Your task to perform on an android device: Open Wikipedia Image 0: 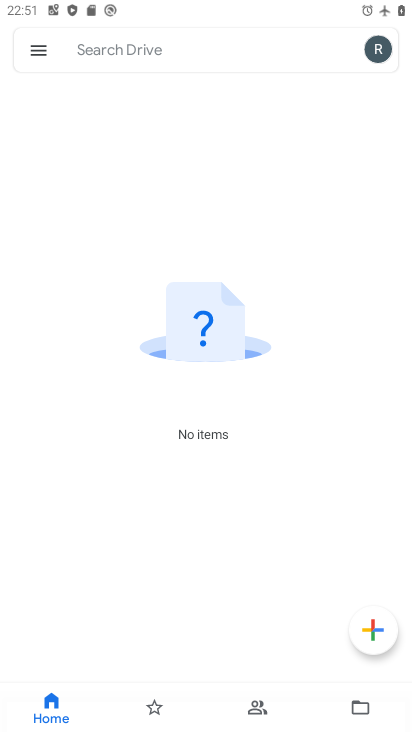
Step 0: drag from (182, 655) to (138, 309)
Your task to perform on an android device: Open Wikipedia Image 1: 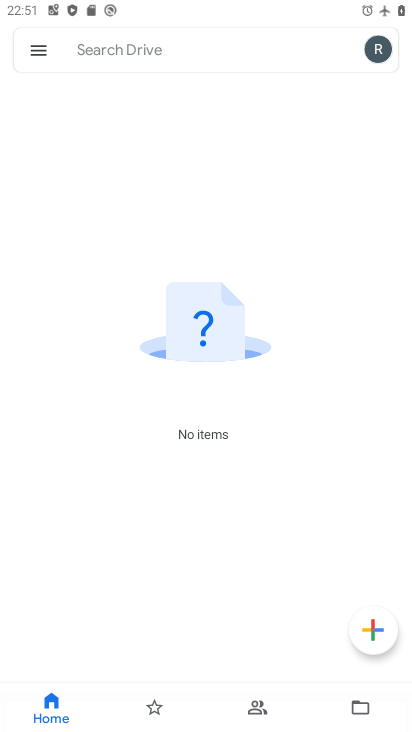
Step 1: press home button
Your task to perform on an android device: Open Wikipedia Image 2: 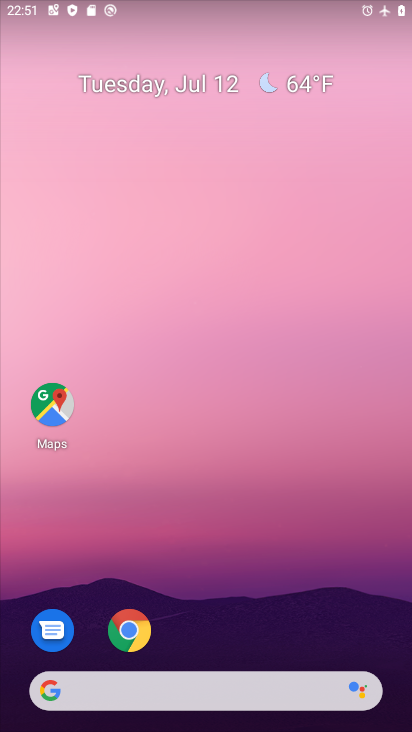
Step 2: drag from (240, 667) to (288, 1)
Your task to perform on an android device: Open Wikipedia Image 3: 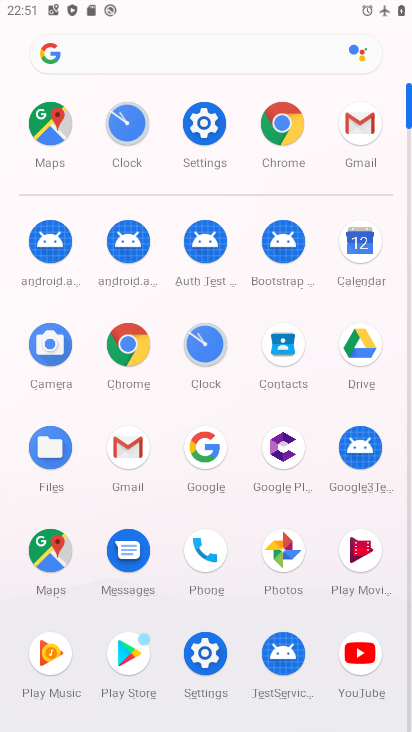
Step 3: click (133, 344)
Your task to perform on an android device: Open Wikipedia Image 4: 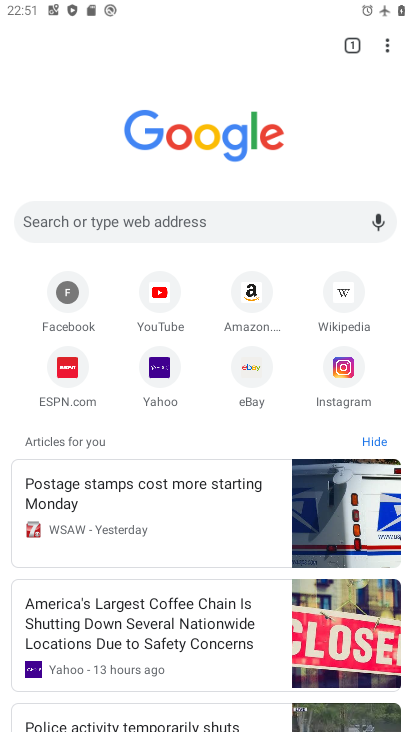
Step 4: click (338, 283)
Your task to perform on an android device: Open Wikipedia Image 5: 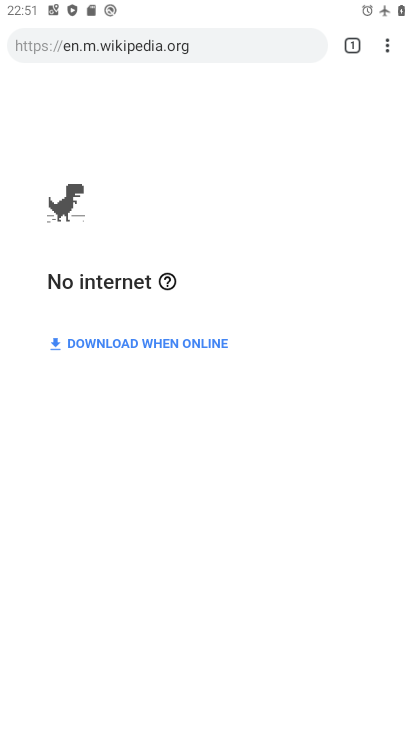
Step 5: task complete